Your task to perform on an android device: What is the capital of Brazil? Image 0: 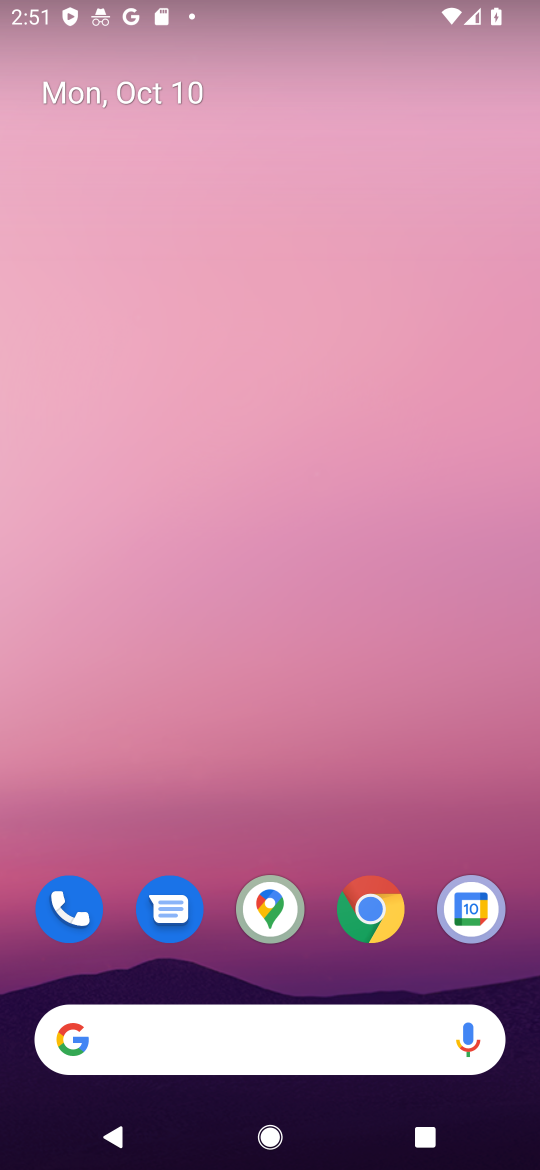
Step 0: click (369, 905)
Your task to perform on an android device: What is the capital of Brazil? Image 1: 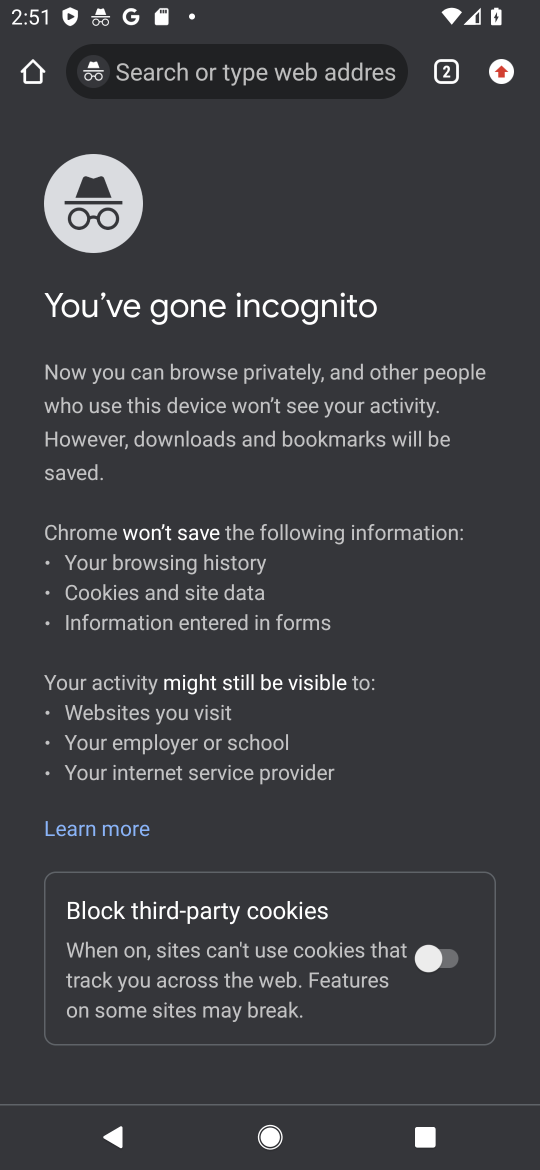
Step 1: click (272, 52)
Your task to perform on an android device: What is the capital of Brazil? Image 2: 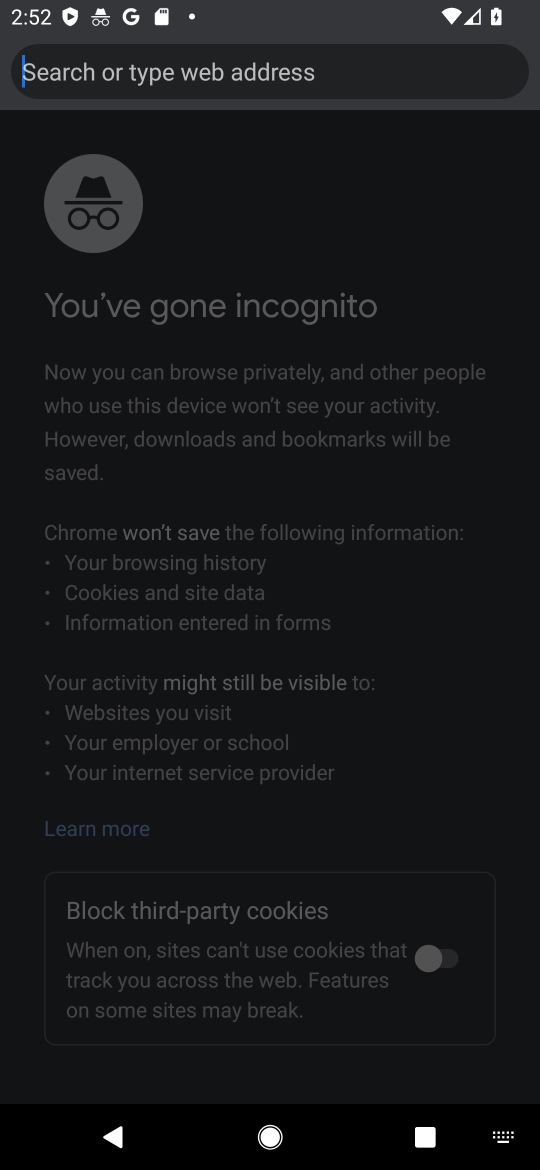
Step 2: press back button
Your task to perform on an android device: What is the capital of Brazil? Image 3: 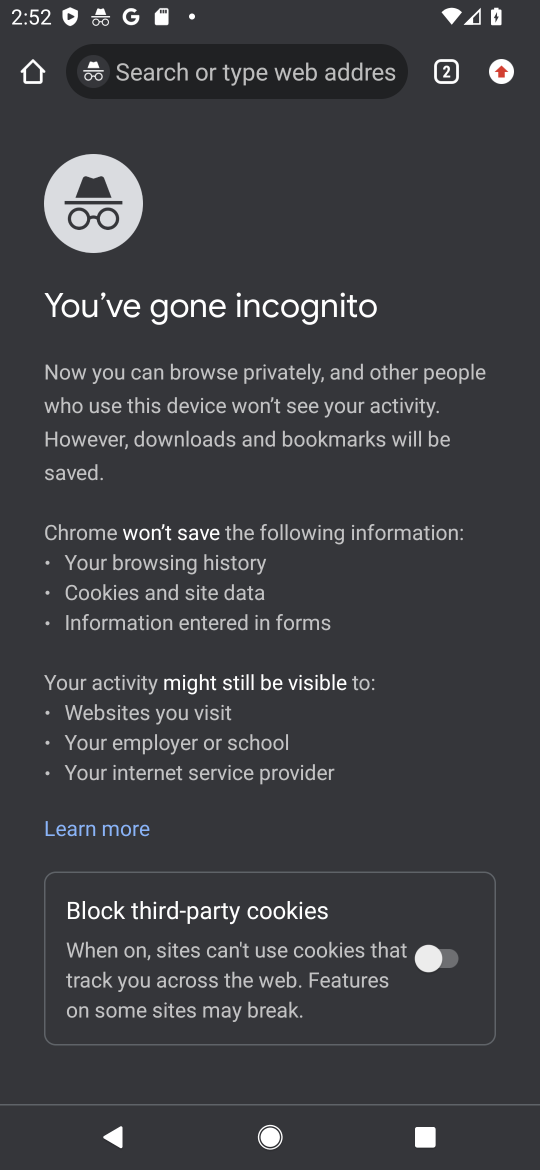
Step 3: click (445, 71)
Your task to perform on an android device: What is the capital of Brazil? Image 4: 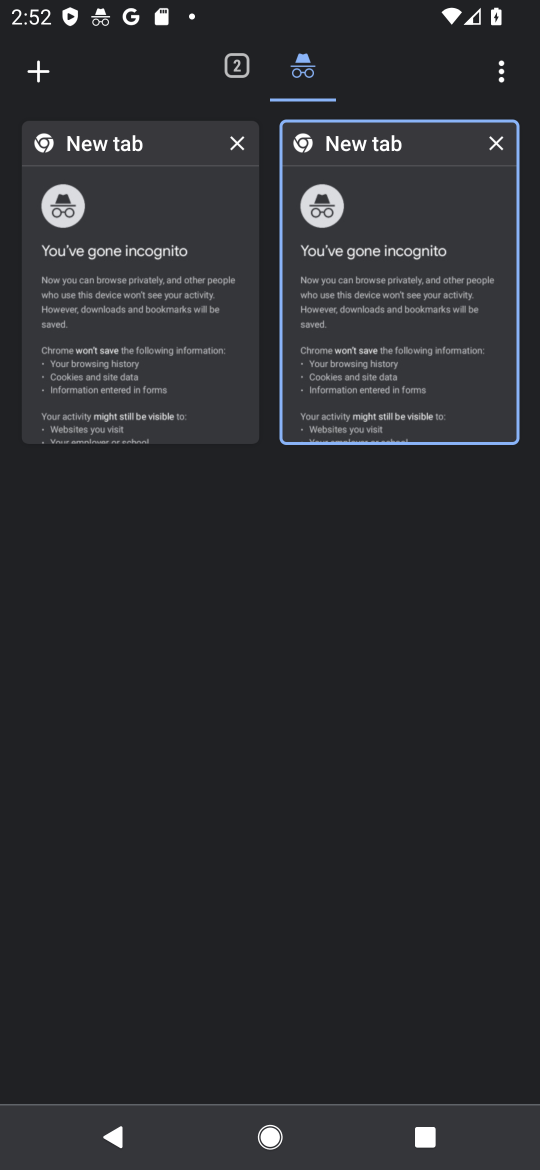
Step 4: click (238, 66)
Your task to perform on an android device: What is the capital of Brazil? Image 5: 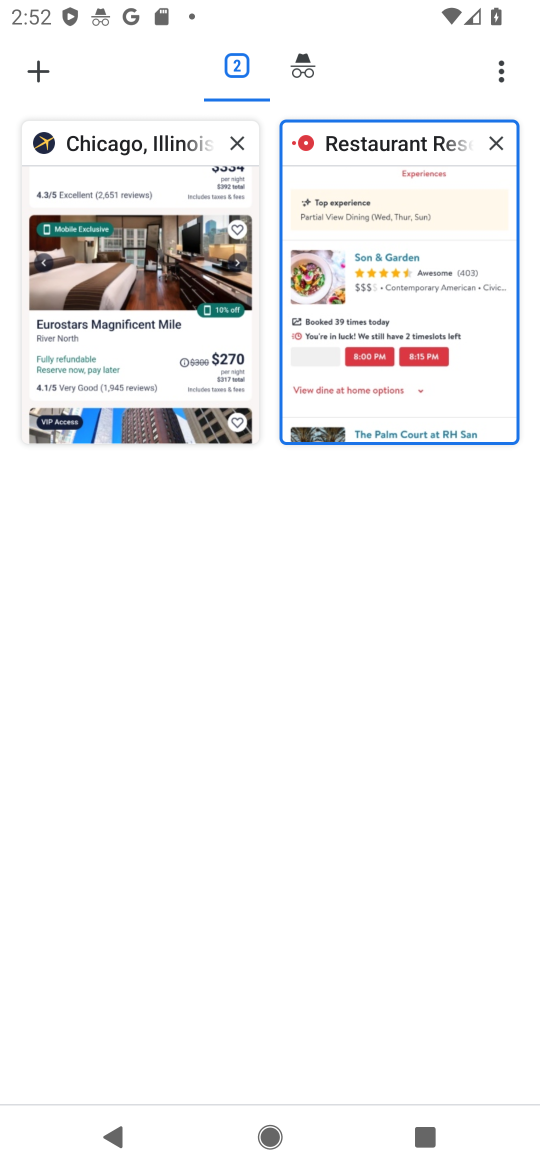
Step 5: click (32, 65)
Your task to perform on an android device: What is the capital of Brazil? Image 6: 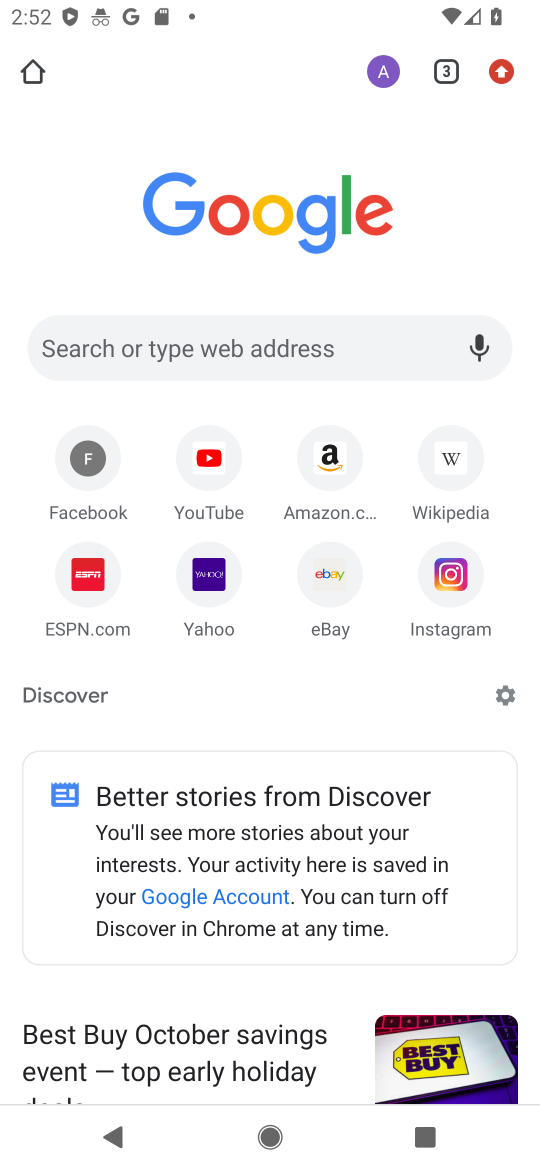
Step 6: click (185, 351)
Your task to perform on an android device: What is the capital of Brazil? Image 7: 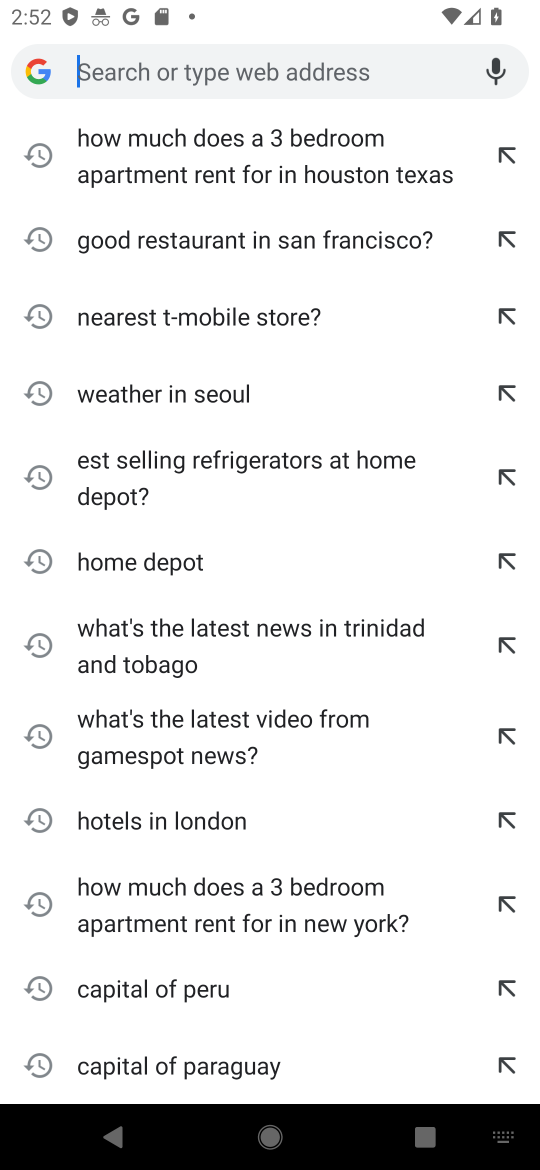
Step 7: type "capital of Brazil?"
Your task to perform on an android device: What is the capital of Brazil? Image 8: 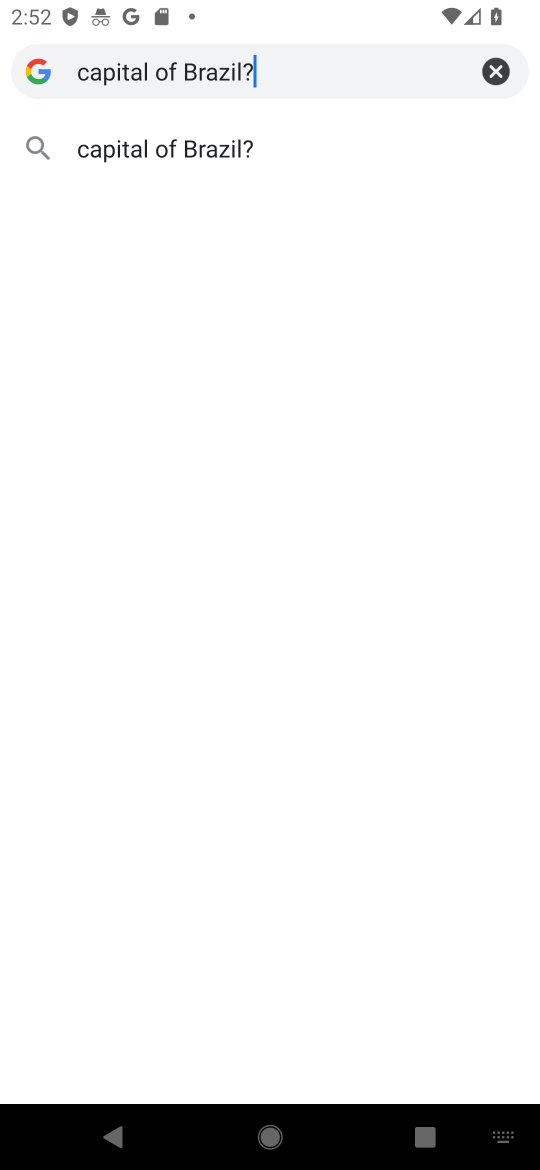
Step 8: click (141, 148)
Your task to perform on an android device: What is the capital of Brazil? Image 9: 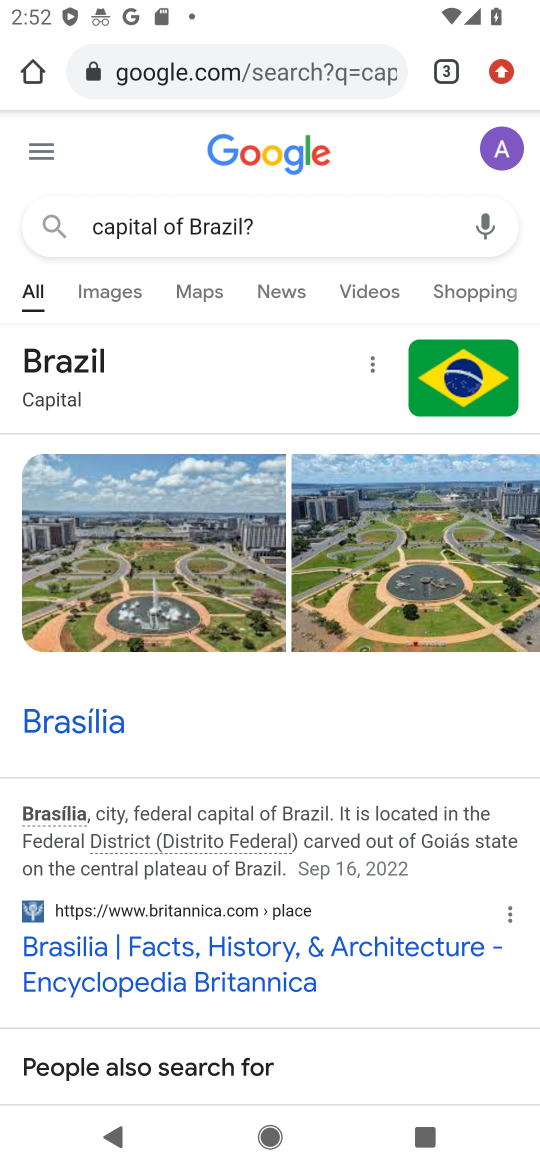
Step 9: task complete